Your task to perform on an android device: open app "Etsy: Buy & Sell Unique Items" (install if not already installed) and go to login screen Image 0: 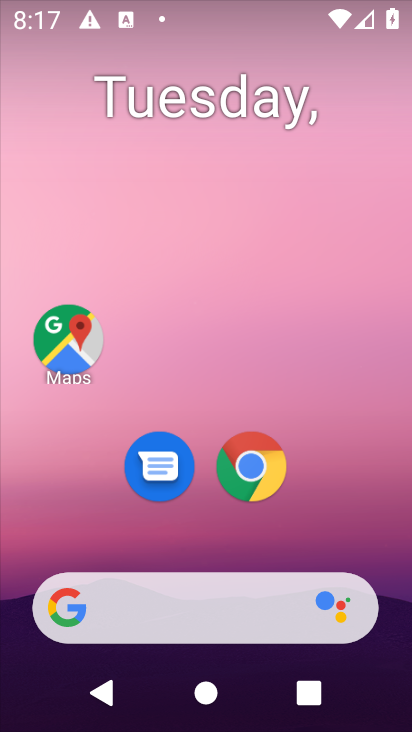
Step 0: drag from (87, 511) to (254, 13)
Your task to perform on an android device: open app "Etsy: Buy & Sell Unique Items" (install if not already installed) and go to login screen Image 1: 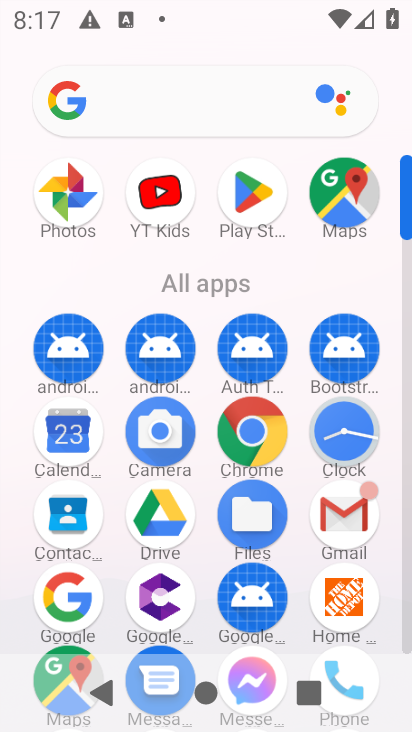
Step 1: click (258, 185)
Your task to perform on an android device: open app "Etsy: Buy & Sell Unique Items" (install if not already installed) and go to login screen Image 2: 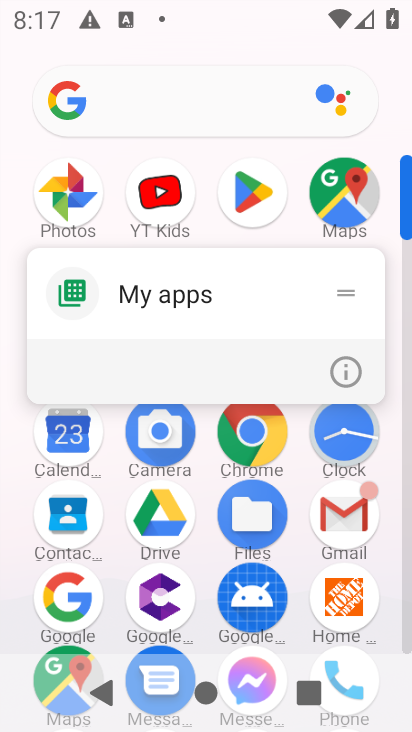
Step 2: click (258, 198)
Your task to perform on an android device: open app "Etsy: Buy & Sell Unique Items" (install if not already installed) and go to login screen Image 3: 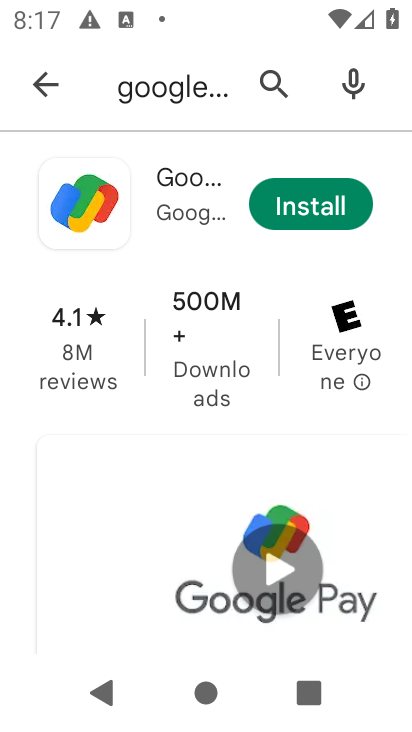
Step 3: click (298, 79)
Your task to perform on an android device: open app "Etsy: Buy & Sell Unique Items" (install if not already installed) and go to login screen Image 4: 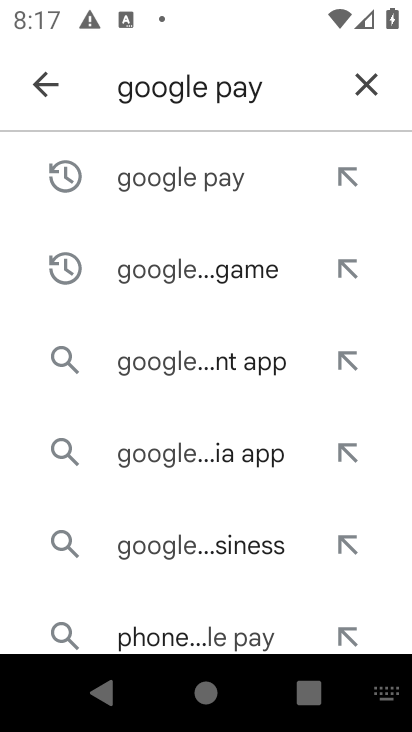
Step 4: click (373, 76)
Your task to perform on an android device: open app "Etsy: Buy & Sell Unique Items" (install if not already installed) and go to login screen Image 5: 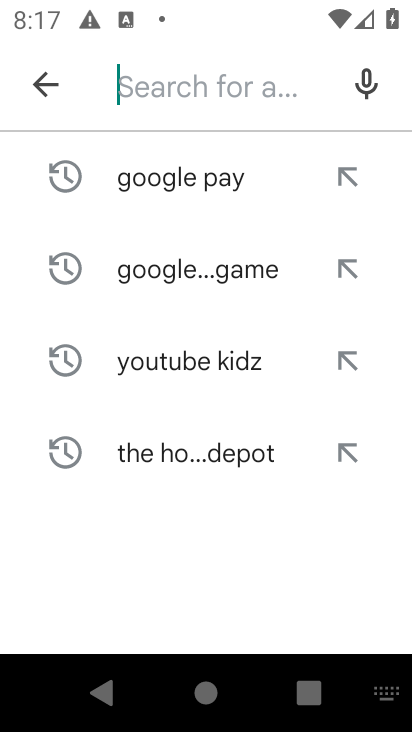
Step 5: click (181, 90)
Your task to perform on an android device: open app "Etsy: Buy & Sell Unique Items" (install if not already installed) and go to login screen Image 6: 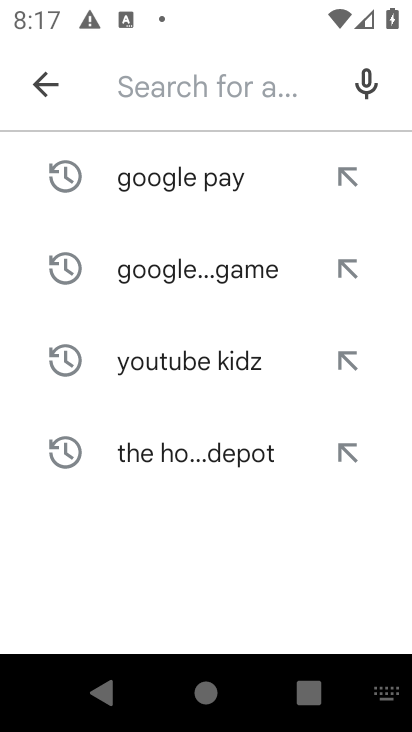
Step 6: type "etsy"
Your task to perform on an android device: open app "Etsy: Buy & Sell Unique Items" (install if not already installed) and go to login screen Image 7: 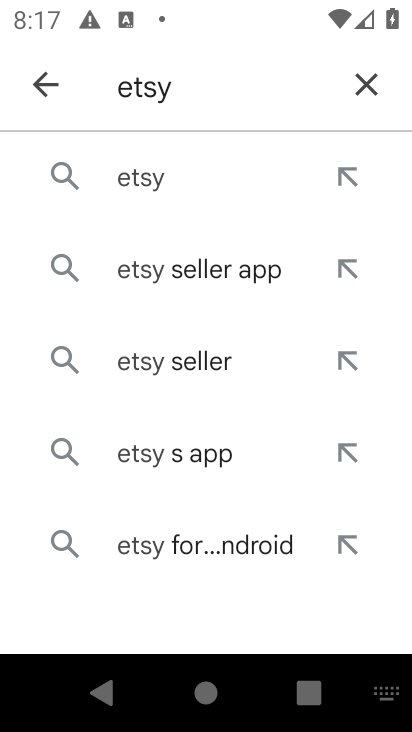
Step 7: click (129, 175)
Your task to perform on an android device: open app "Etsy: Buy & Sell Unique Items" (install if not already installed) and go to login screen Image 8: 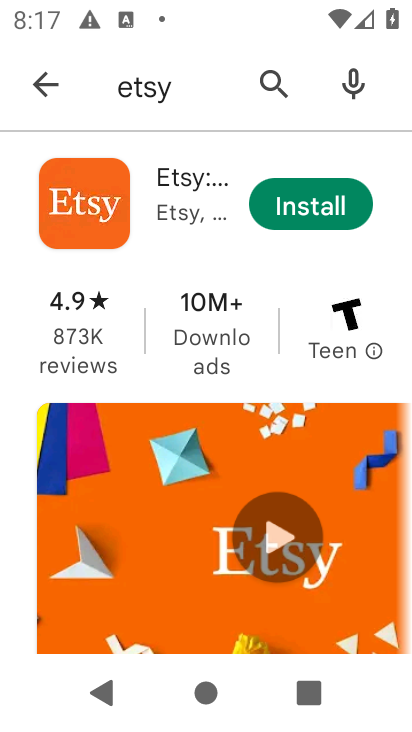
Step 8: click (288, 212)
Your task to perform on an android device: open app "Etsy: Buy & Sell Unique Items" (install if not already installed) and go to login screen Image 9: 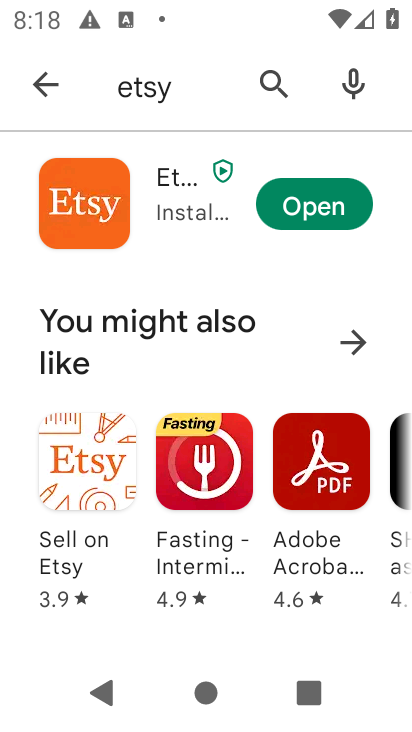
Step 9: click (305, 214)
Your task to perform on an android device: open app "Etsy: Buy & Sell Unique Items" (install if not already installed) and go to login screen Image 10: 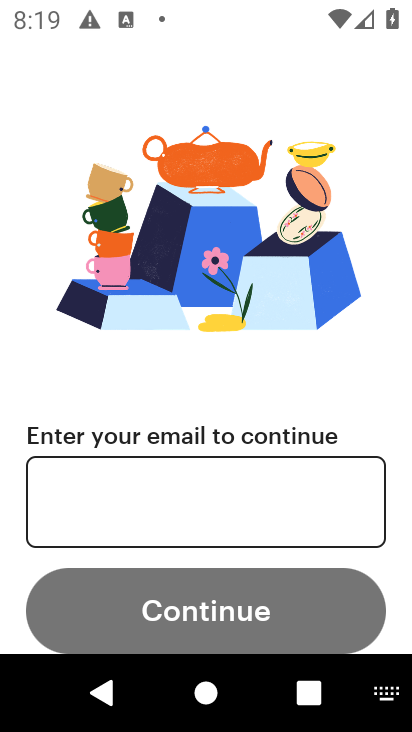
Step 10: task complete